Your task to perform on an android device: Show the shopping cart on bestbuy. Image 0: 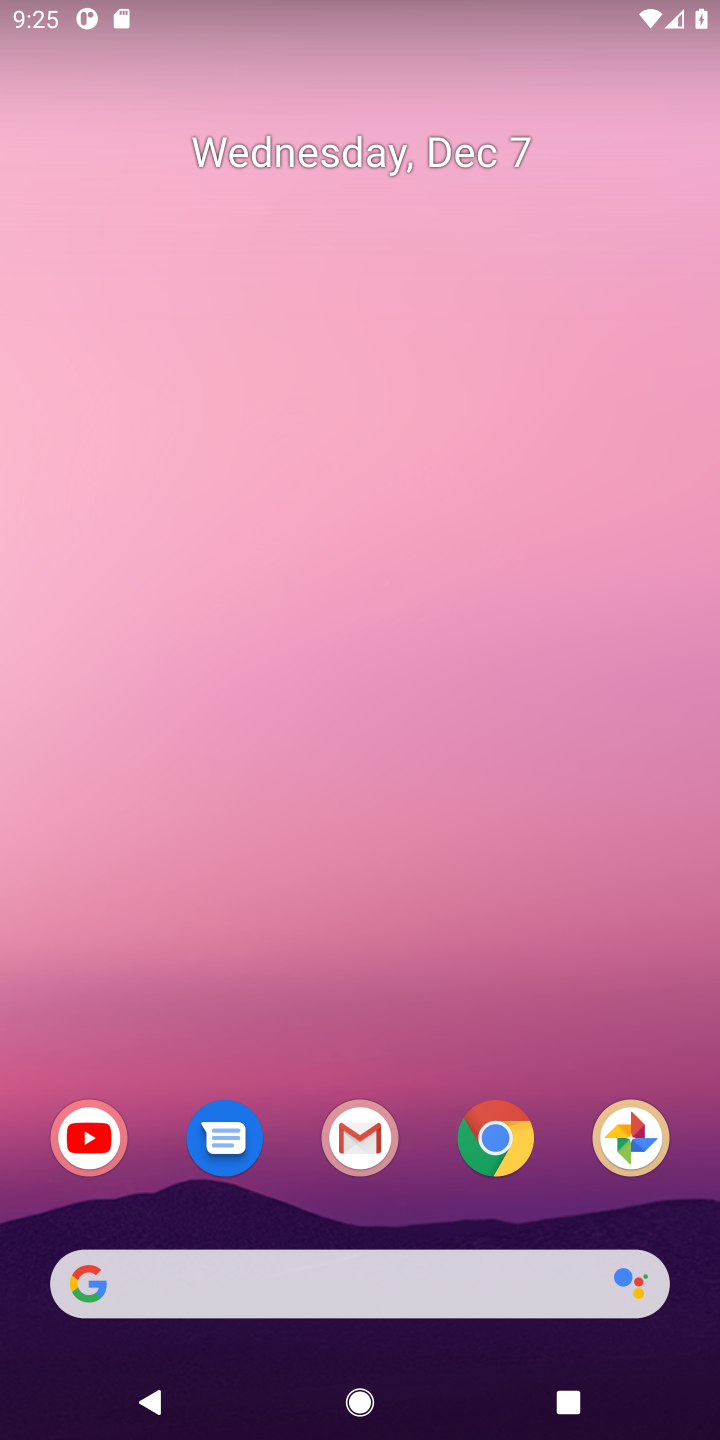
Step 0: press home button
Your task to perform on an android device: Show the shopping cart on bestbuy. Image 1: 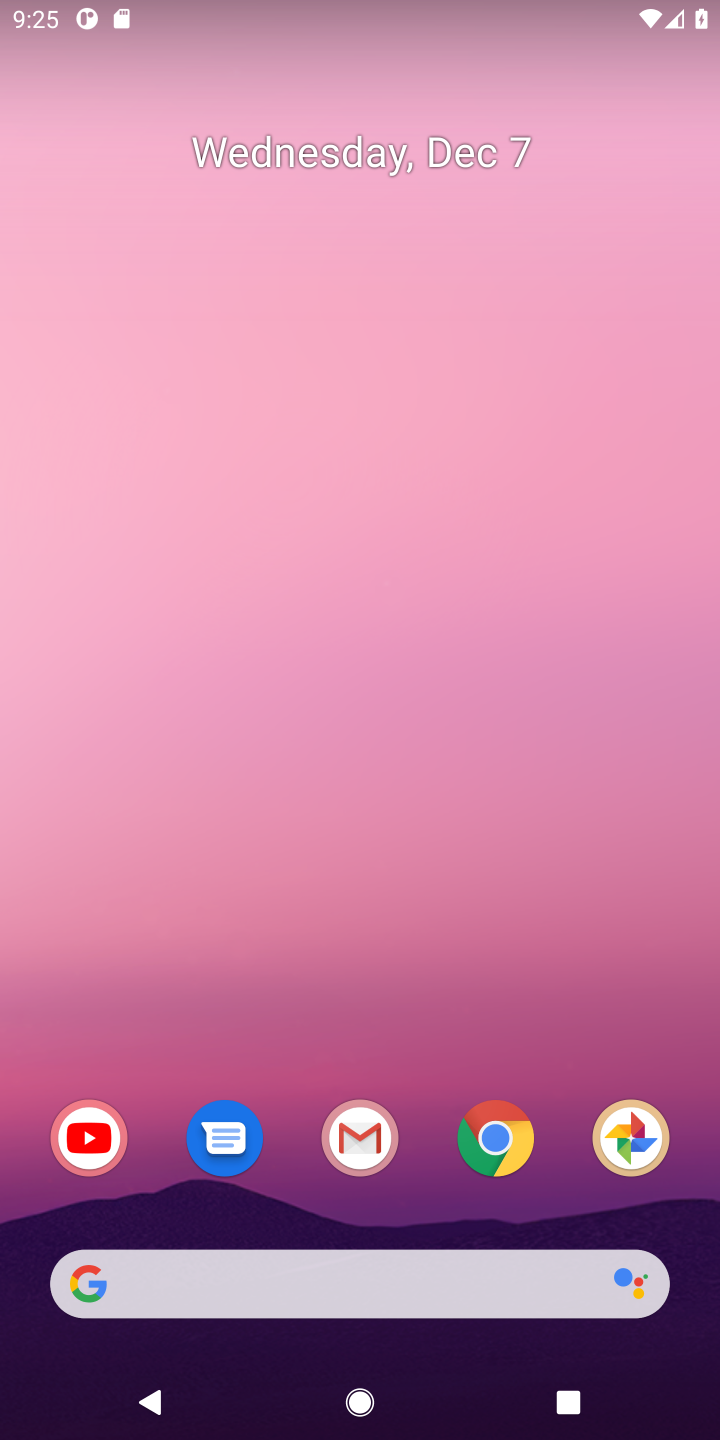
Step 1: click (117, 1287)
Your task to perform on an android device: Show the shopping cart on bestbuy. Image 2: 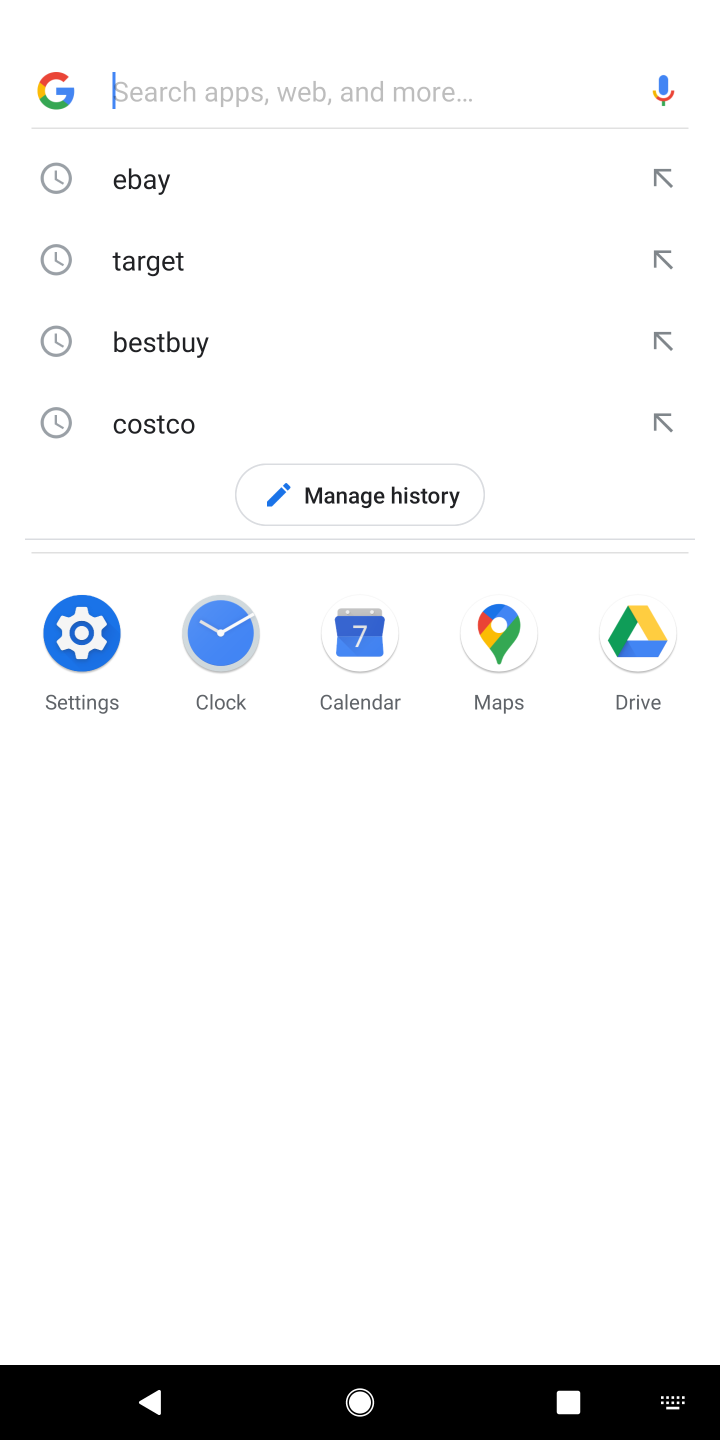
Step 2: type "bestbuy"
Your task to perform on an android device: Show the shopping cart on bestbuy. Image 3: 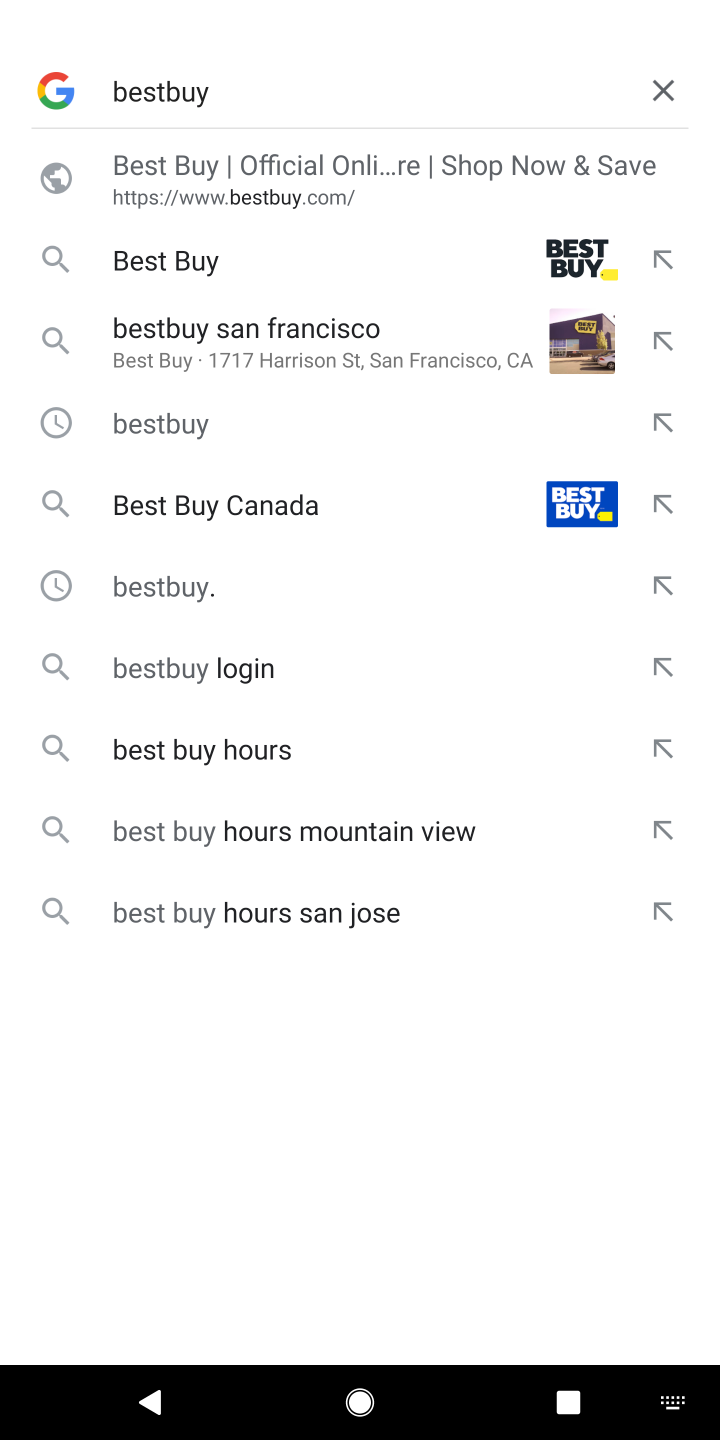
Step 3: press enter
Your task to perform on an android device: Show the shopping cart on bestbuy. Image 4: 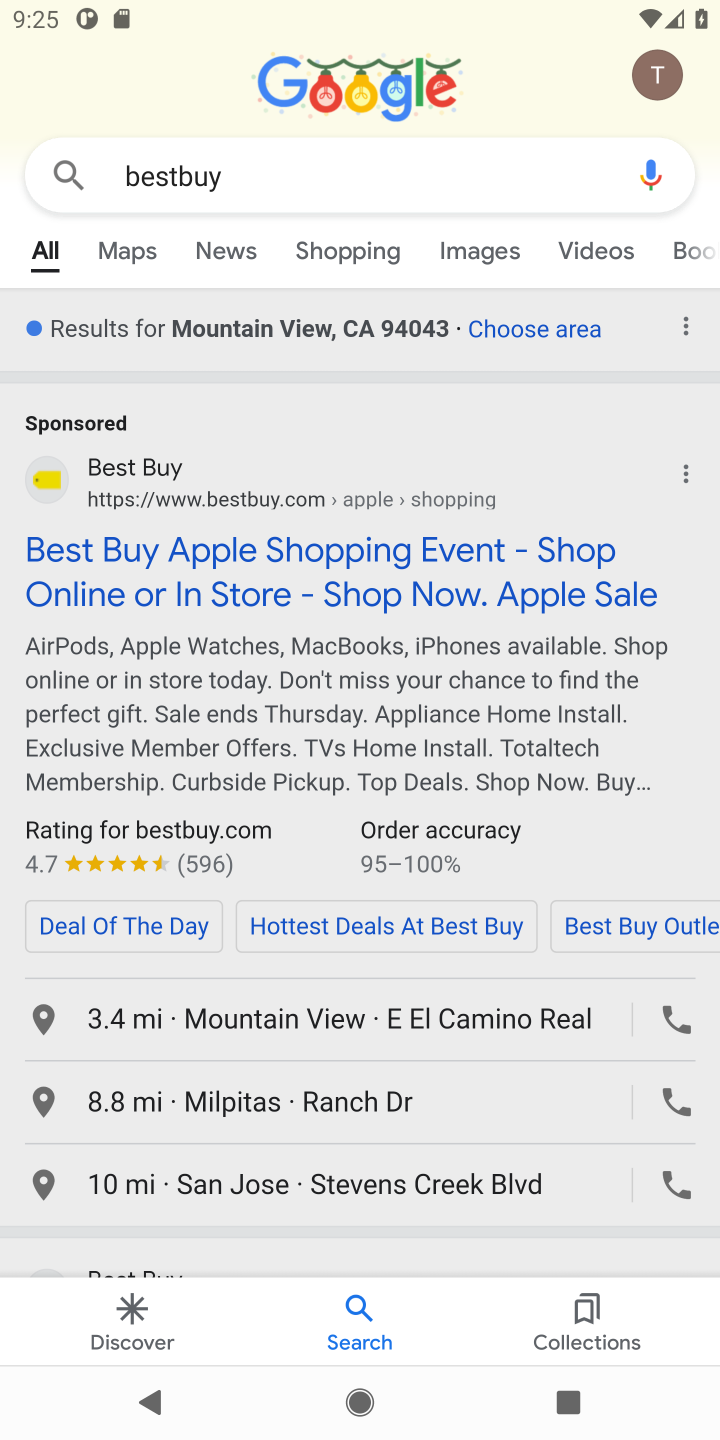
Step 4: click (278, 571)
Your task to perform on an android device: Show the shopping cart on bestbuy. Image 5: 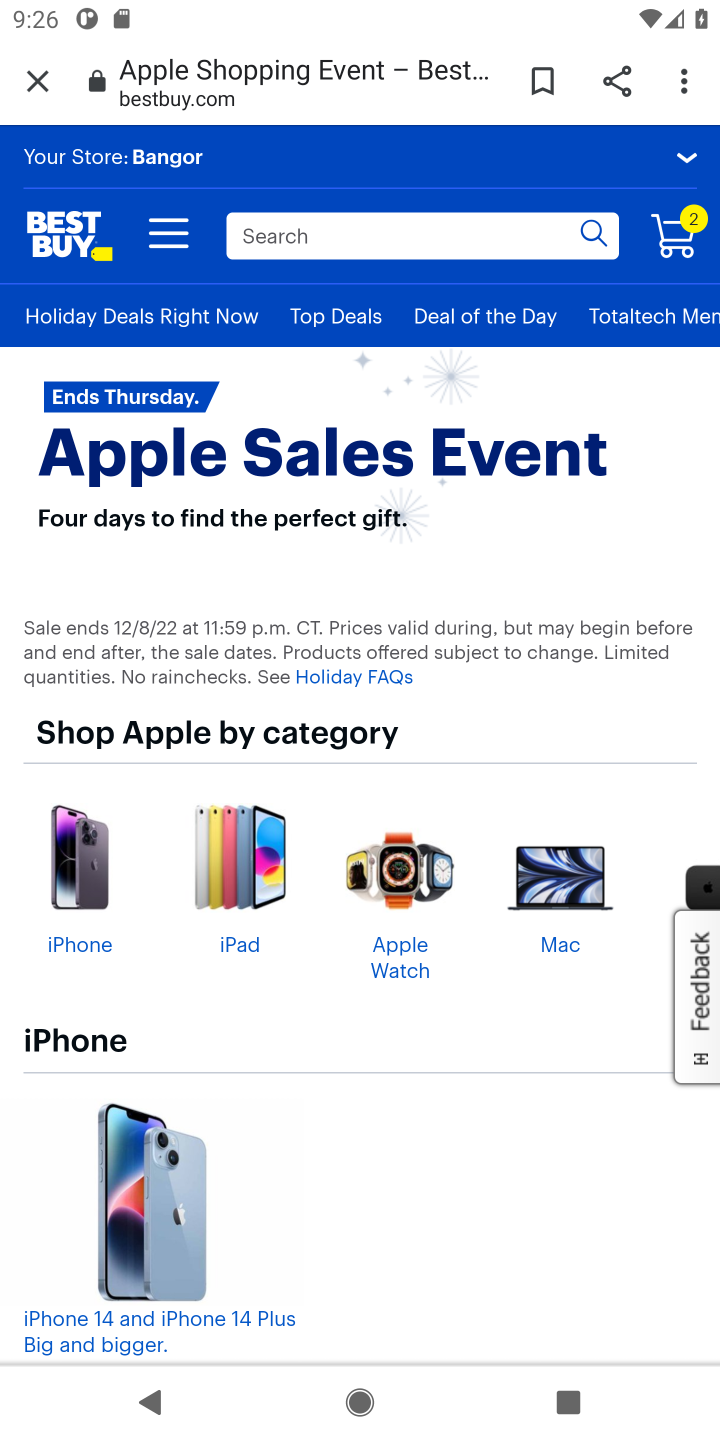
Step 5: click (670, 231)
Your task to perform on an android device: Show the shopping cart on bestbuy. Image 6: 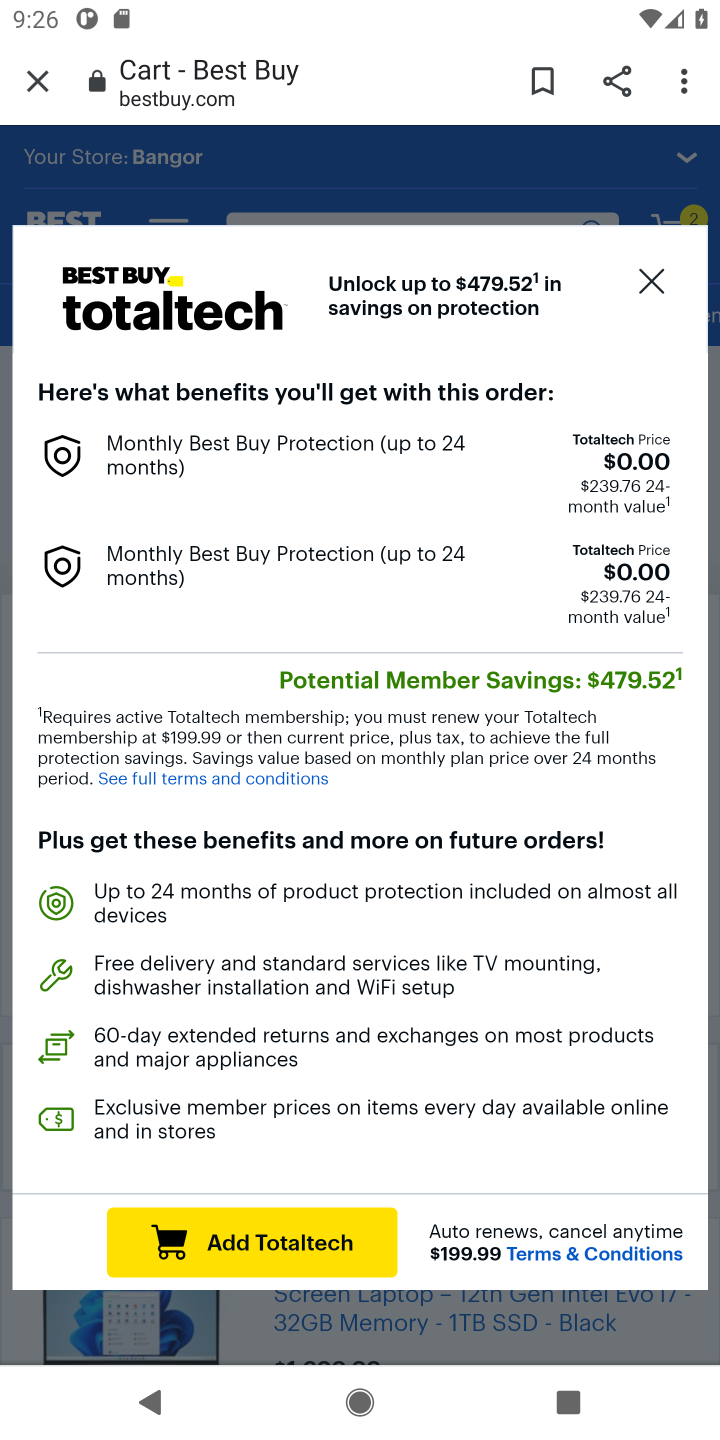
Step 6: click (644, 275)
Your task to perform on an android device: Show the shopping cart on bestbuy. Image 7: 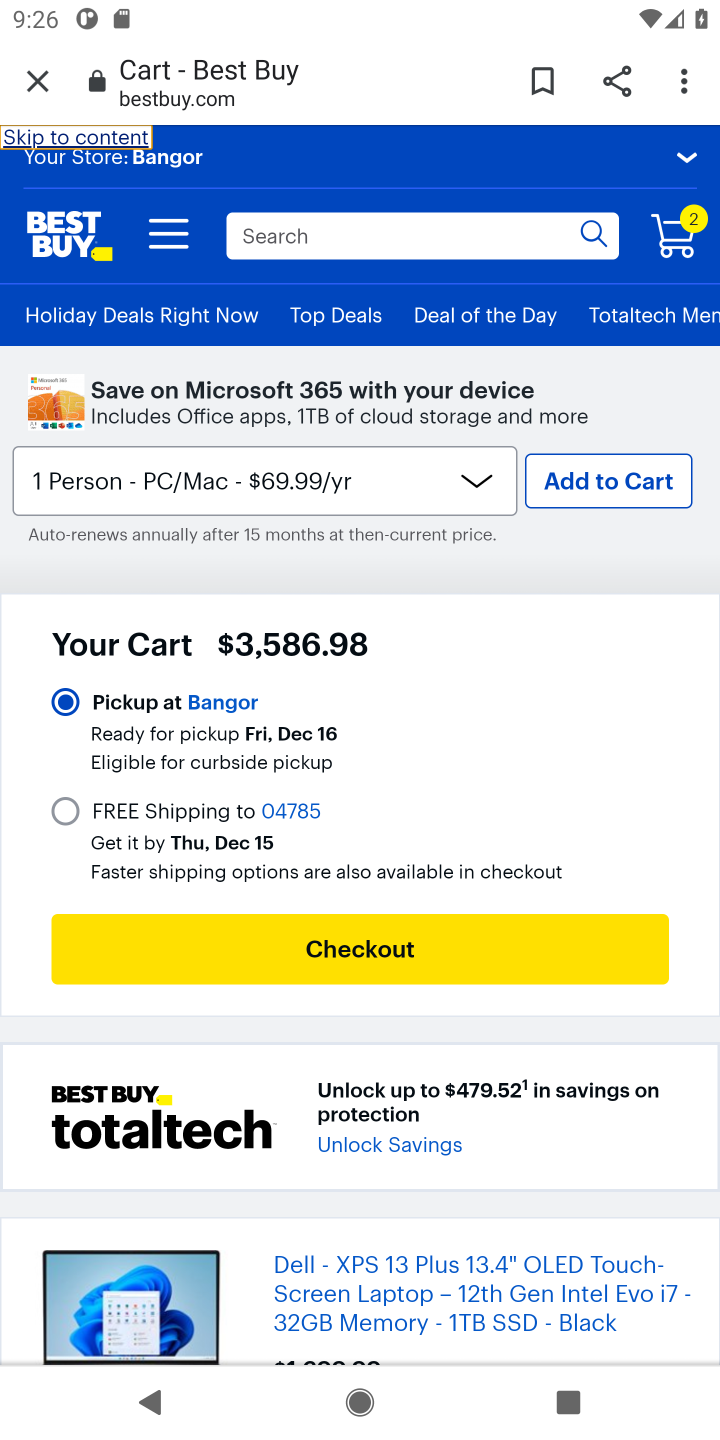
Step 7: task complete